Your task to perform on an android device: What is the capital of China? Image 0: 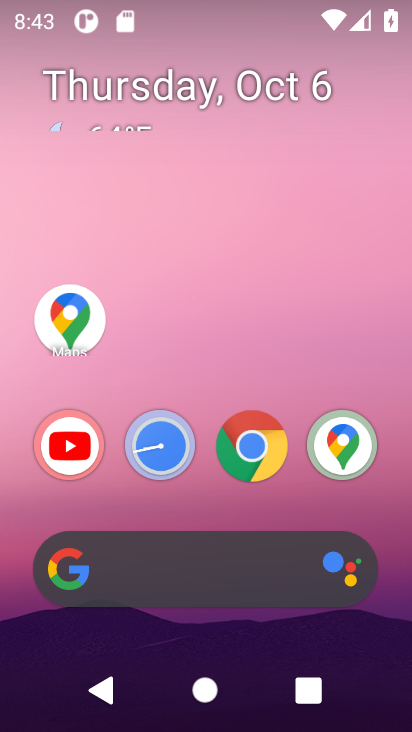
Step 0: click (229, 583)
Your task to perform on an android device: What is the capital of China? Image 1: 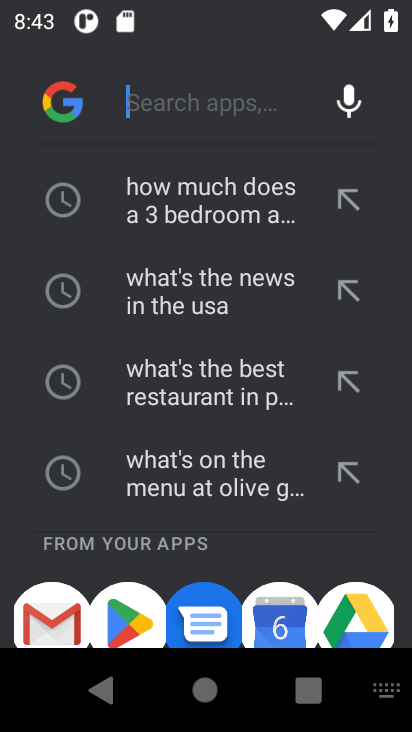
Step 1: type "What is the capital of China?"
Your task to perform on an android device: What is the capital of China? Image 2: 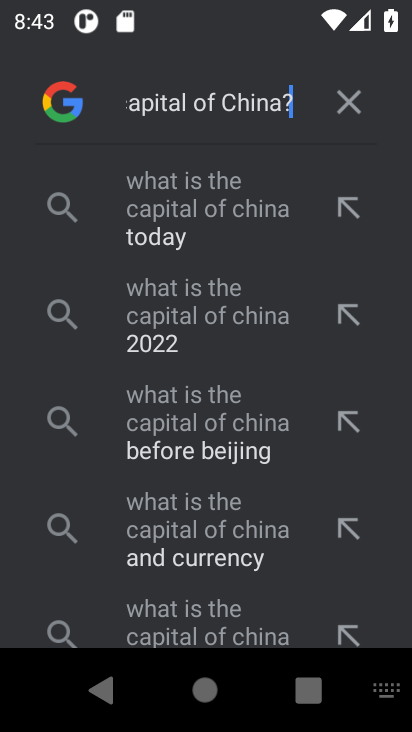
Step 2: click (209, 184)
Your task to perform on an android device: What is the capital of China? Image 3: 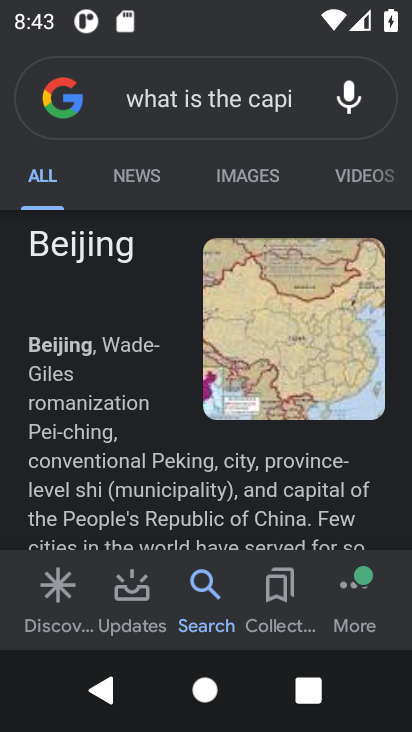
Step 3: task complete